Your task to perform on an android device: Go to CNN.com Image 0: 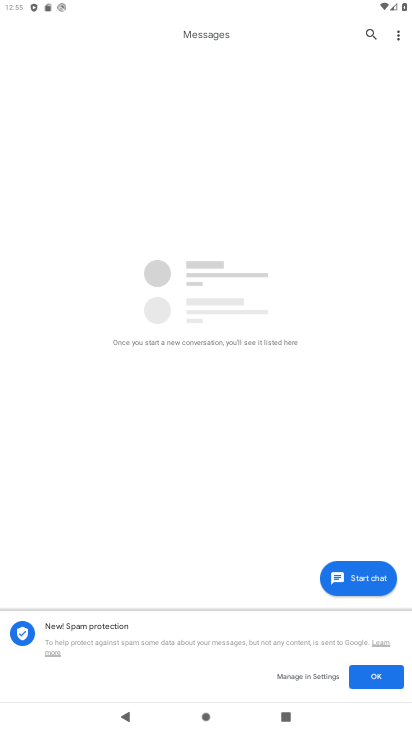
Step 0: press home button
Your task to perform on an android device: Go to CNN.com Image 1: 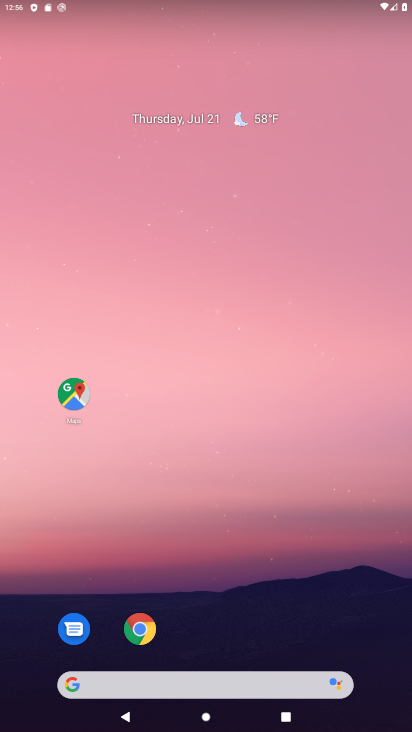
Step 1: click (138, 630)
Your task to perform on an android device: Go to CNN.com Image 2: 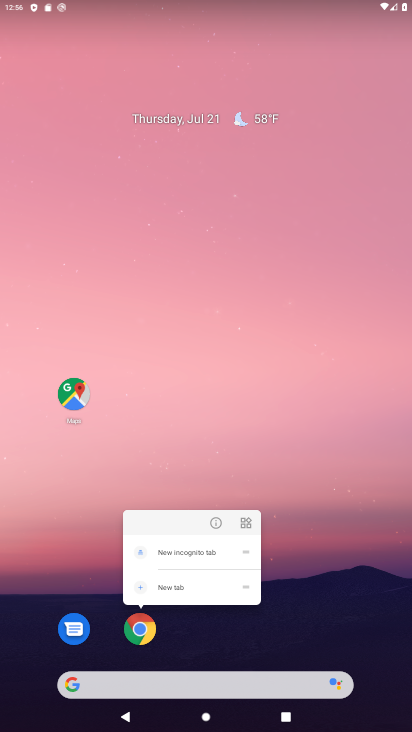
Step 2: click (141, 630)
Your task to perform on an android device: Go to CNN.com Image 3: 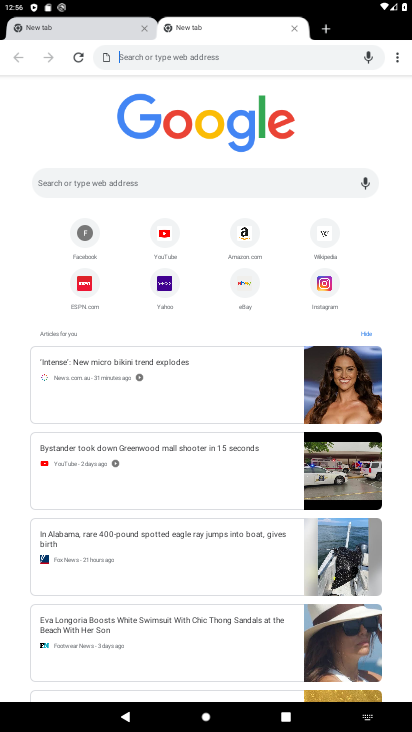
Step 3: type "CNN.com"
Your task to perform on an android device: Go to CNN.com Image 4: 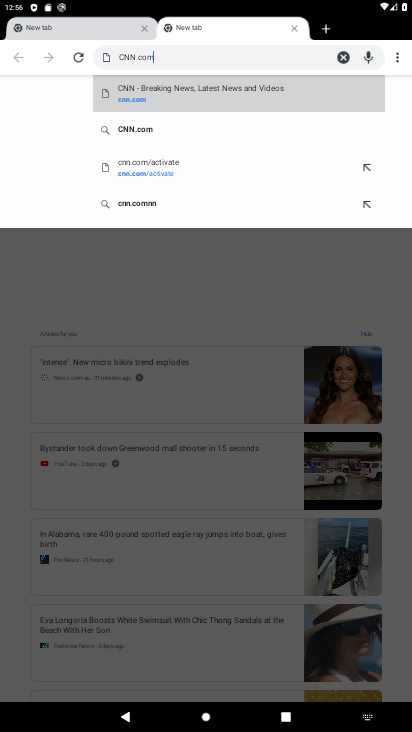
Step 4: click (129, 125)
Your task to perform on an android device: Go to CNN.com Image 5: 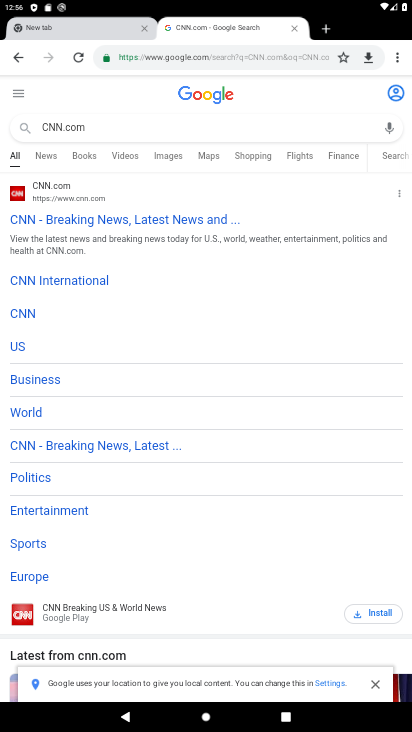
Step 5: click (133, 216)
Your task to perform on an android device: Go to CNN.com Image 6: 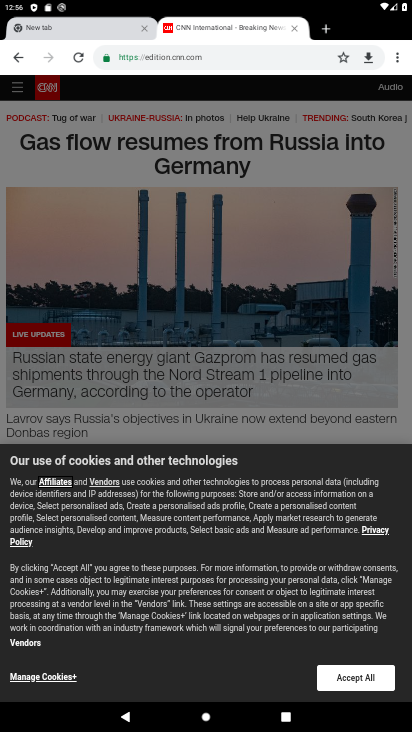
Step 6: click (355, 676)
Your task to perform on an android device: Go to CNN.com Image 7: 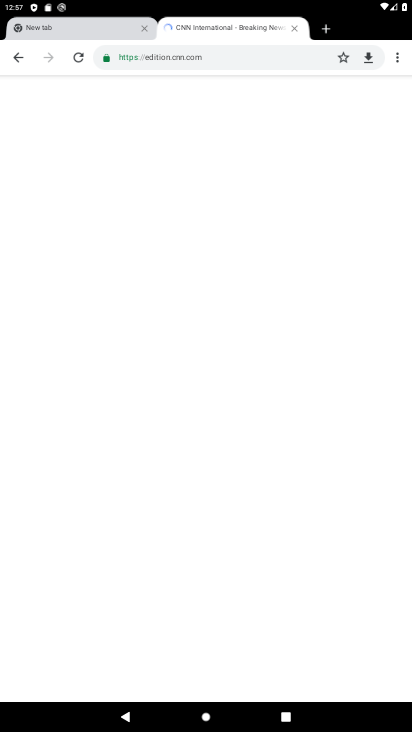
Step 7: task complete